Your task to perform on an android device: open a bookmark in the chrome app Image 0: 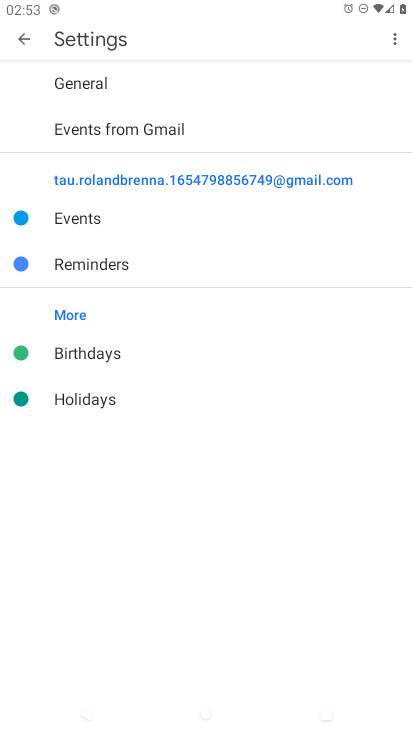
Step 0: press home button
Your task to perform on an android device: open a bookmark in the chrome app Image 1: 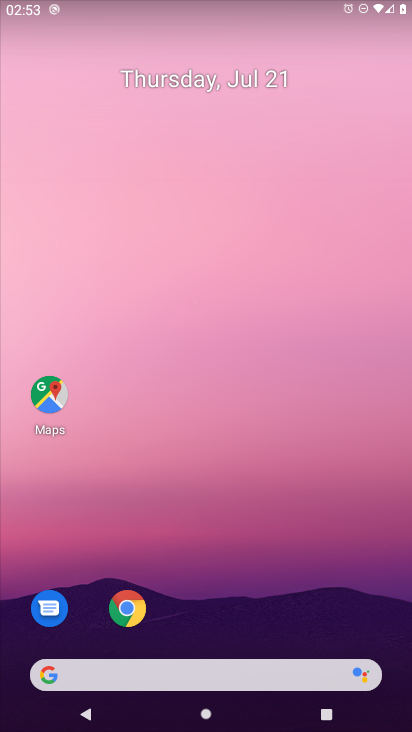
Step 1: drag from (225, 639) to (302, 101)
Your task to perform on an android device: open a bookmark in the chrome app Image 2: 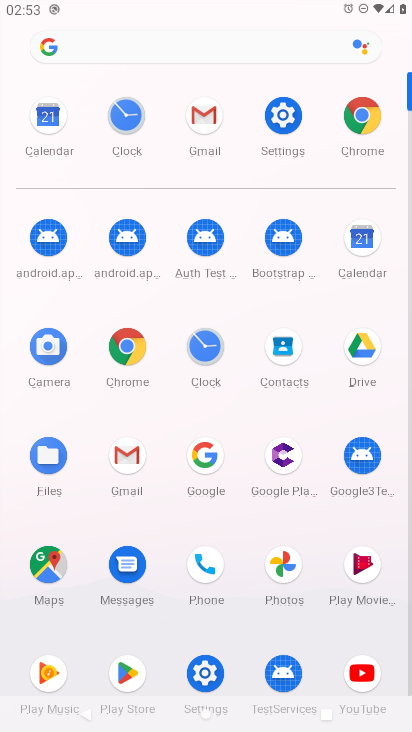
Step 2: click (130, 353)
Your task to perform on an android device: open a bookmark in the chrome app Image 3: 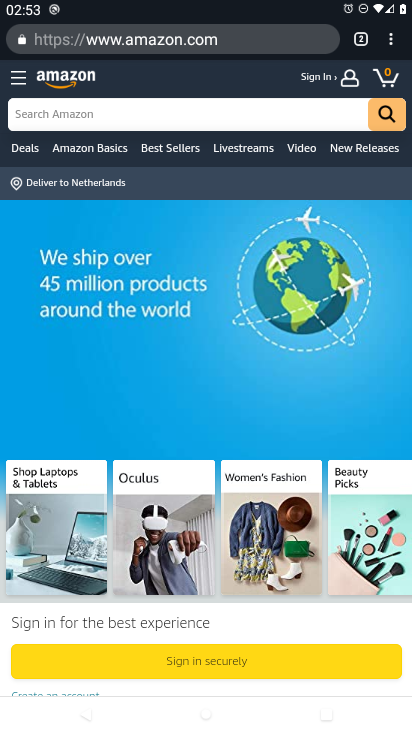
Step 3: drag from (394, 35) to (284, 145)
Your task to perform on an android device: open a bookmark in the chrome app Image 4: 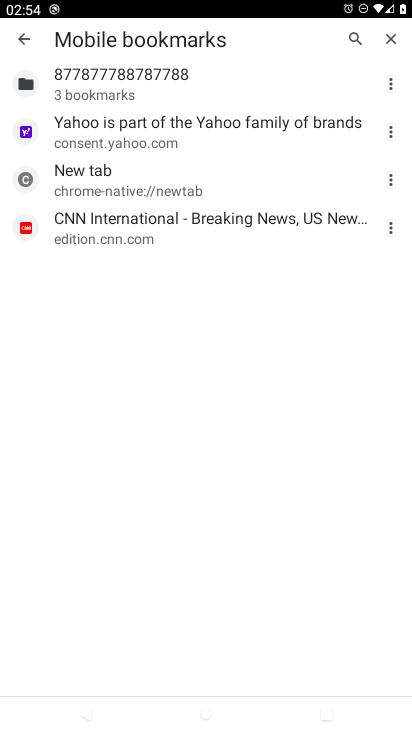
Step 4: click (114, 126)
Your task to perform on an android device: open a bookmark in the chrome app Image 5: 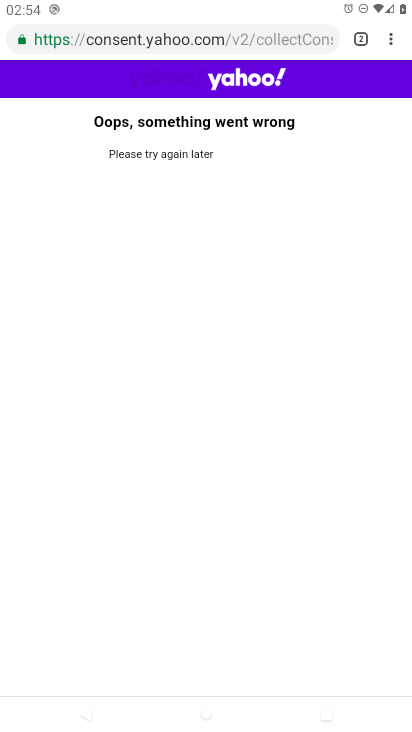
Step 5: task complete